Your task to perform on an android device: Open calendar and show me the fourth week of next month Image 0: 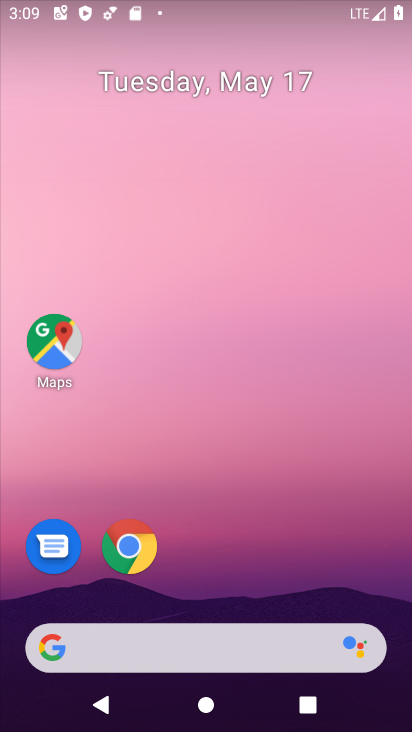
Step 0: press home button
Your task to perform on an android device: Open calendar and show me the fourth week of next month Image 1: 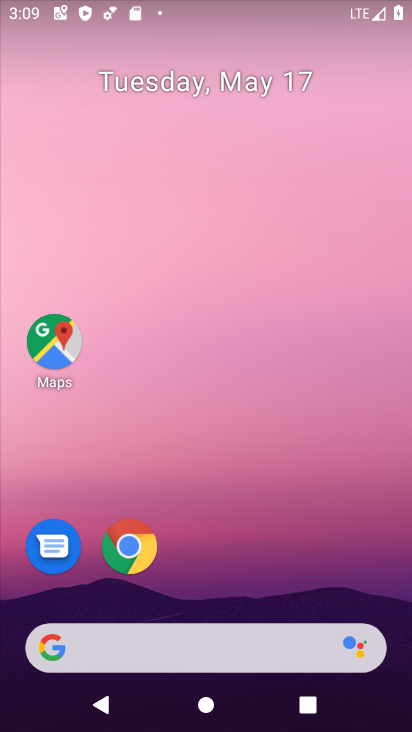
Step 1: drag from (352, 589) to (336, 31)
Your task to perform on an android device: Open calendar and show me the fourth week of next month Image 2: 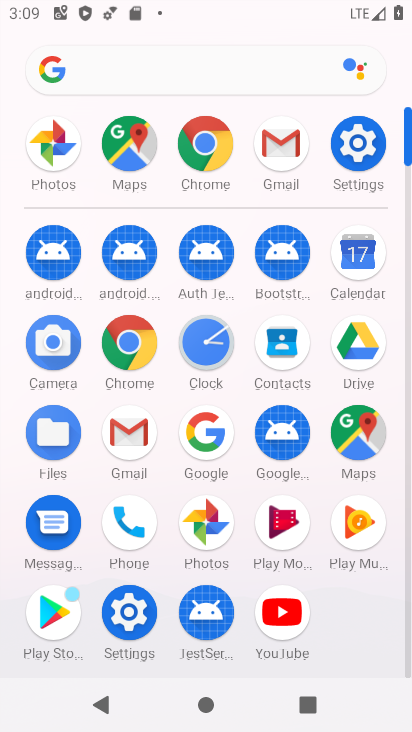
Step 2: click (372, 247)
Your task to perform on an android device: Open calendar and show me the fourth week of next month Image 3: 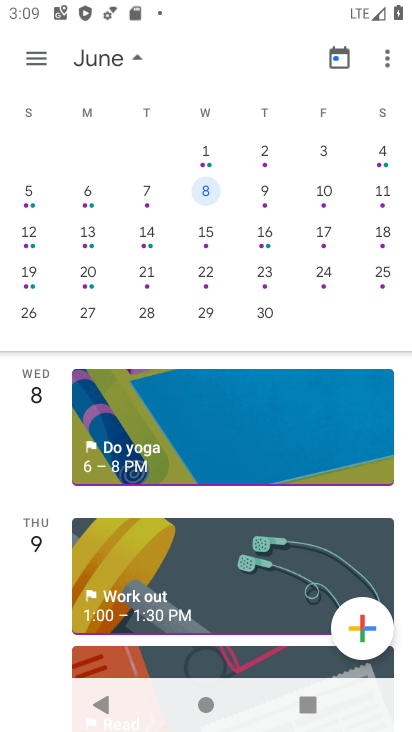
Step 3: click (207, 275)
Your task to perform on an android device: Open calendar and show me the fourth week of next month Image 4: 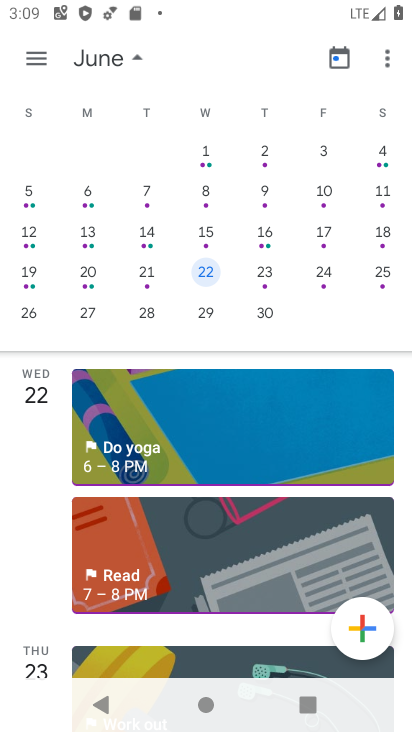
Step 4: task complete